Your task to perform on an android device: Open the Play Movies app and select the watchlist tab. Image 0: 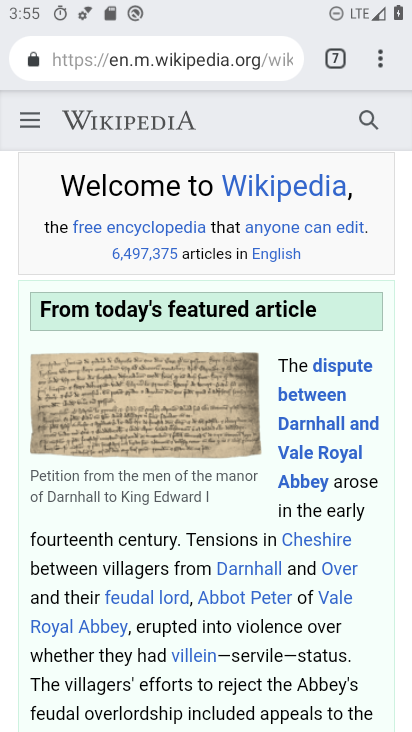
Step 0: press home button
Your task to perform on an android device: Open the Play Movies app and select the watchlist tab. Image 1: 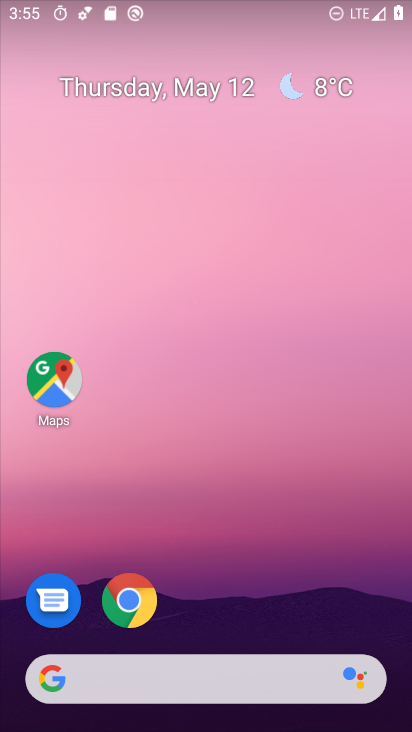
Step 1: drag from (218, 715) to (232, 219)
Your task to perform on an android device: Open the Play Movies app and select the watchlist tab. Image 2: 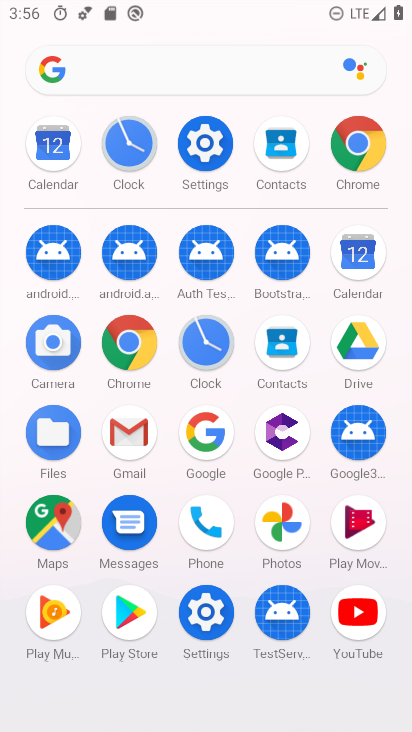
Step 2: click (345, 526)
Your task to perform on an android device: Open the Play Movies app and select the watchlist tab. Image 3: 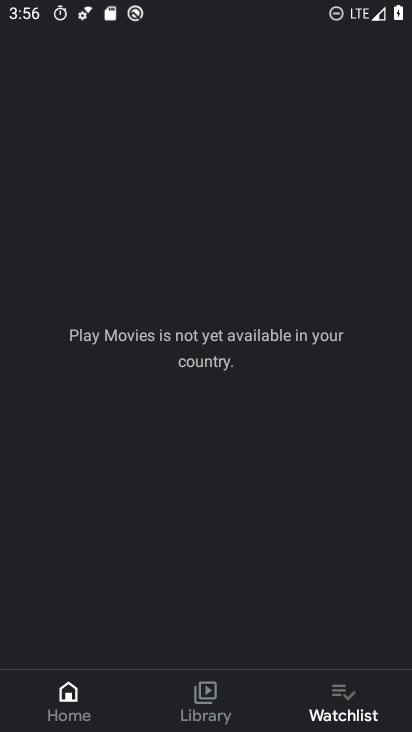
Step 3: click (336, 684)
Your task to perform on an android device: Open the Play Movies app and select the watchlist tab. Image 4: 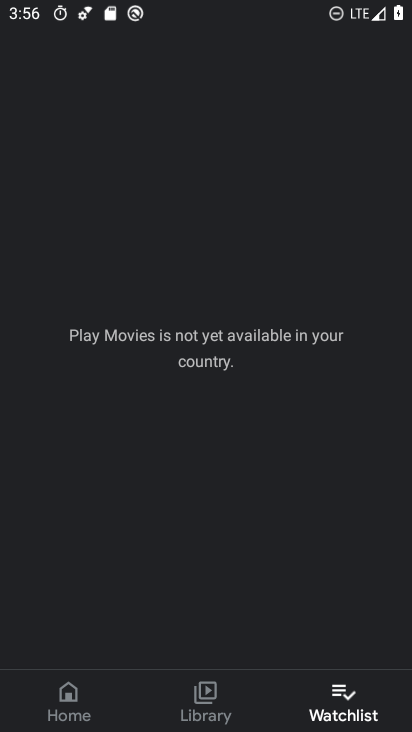
Step 4: task complete